Your task to perform on an android device: clear all cookies in the chrome app Image 0: 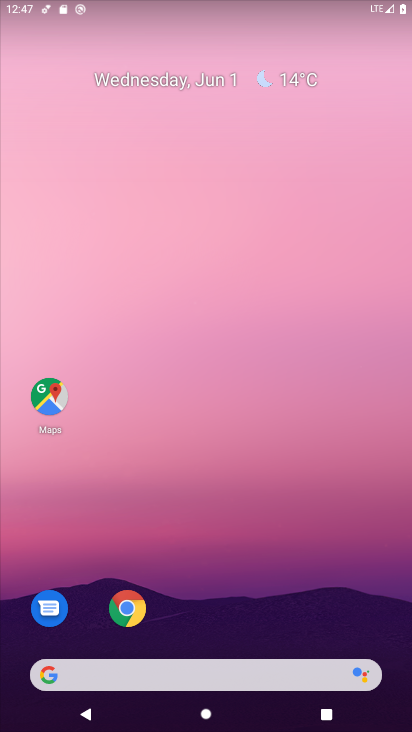
Step 0: click (130, 611)
Your task to perform on an android device: clear all cookies in the chrome app Image 1: 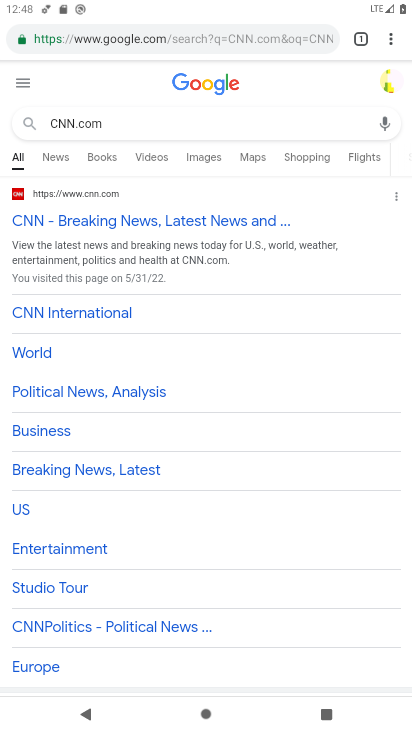
Step 1: click (393, 42)
Your task to perform on an android device: clear all cookies in the chrome app Image 2: 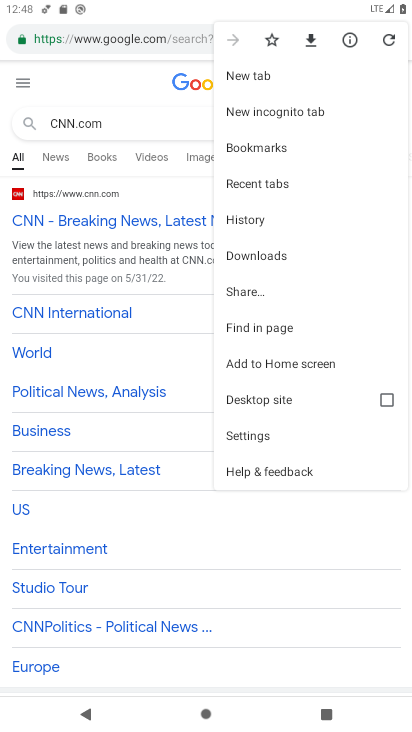
Step 2: click (250, 220)
Your task to perform on an android device: clear all cookies in the chrome app Image 3: 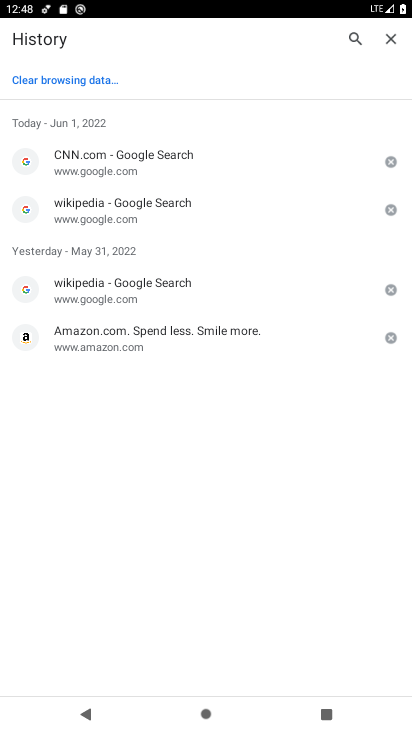
Step 3: click (57, 75)
Your task to perform on an android device: clear all cookies in the chrome app Image 4: 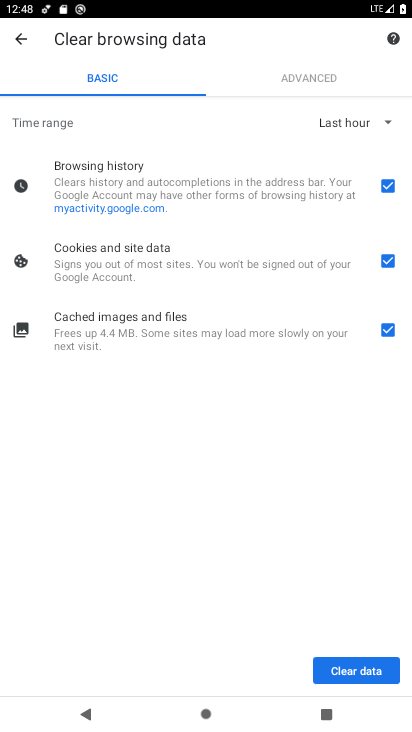
Step 4: click (366, 183)
Your task to perform on an android device: clear all cookies in the chrome app Image 5: 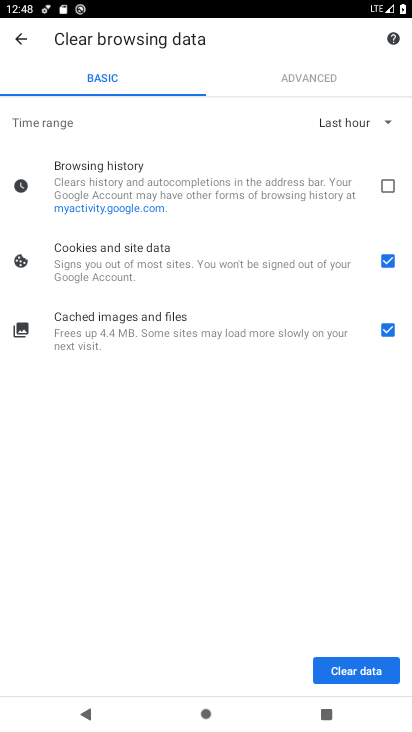
Step 5: click (385, 336)
Your task to perform on an android device: clear all cookies in the chrome app Image 6: 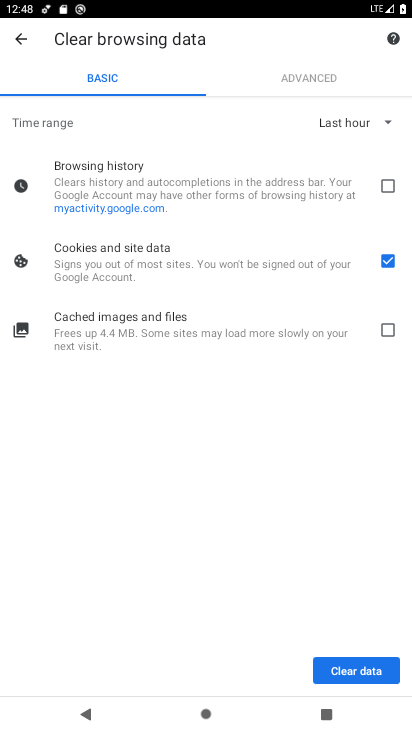
Step 6: click (363, 672)
Your task to perform on an android device: clear all cookies in the chrome app Image 7: 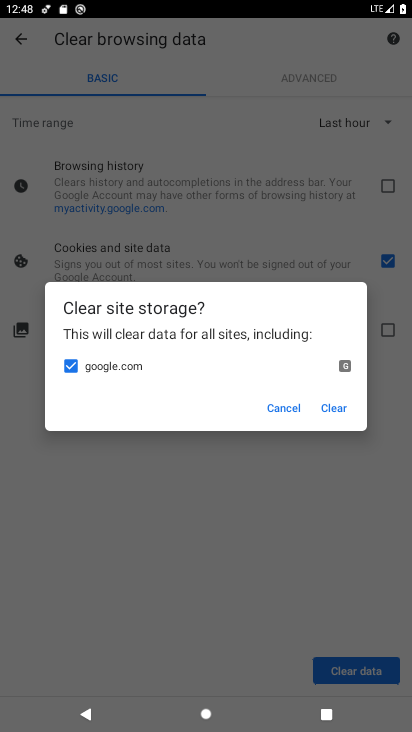
Step 7: click (336, 413)
Your task to perform on an android device: clear all cookies in the chrome app Image 8: 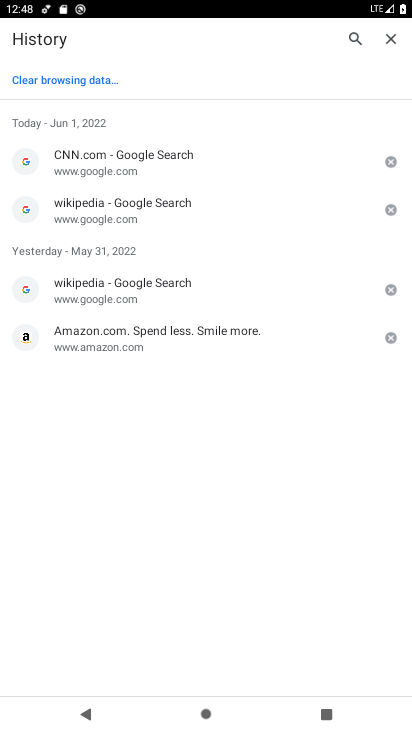
Step 8: task complete